Your task to perform on an android device: What is the news today? Image 0: 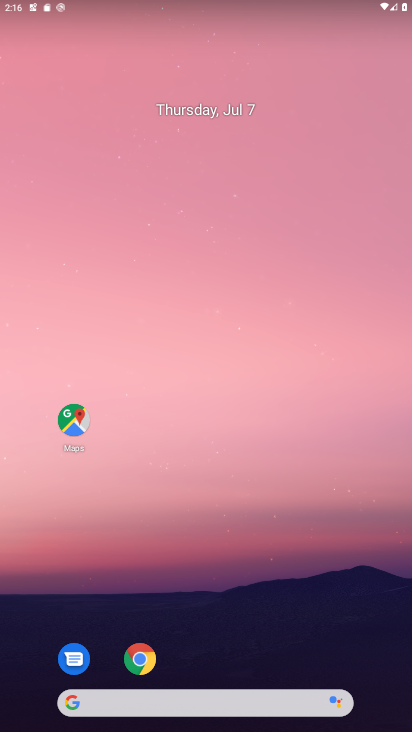
Step 0: drag from (238, 662) to (222, 2)
Your task to perform on an android device: What is the news today? Image 1: 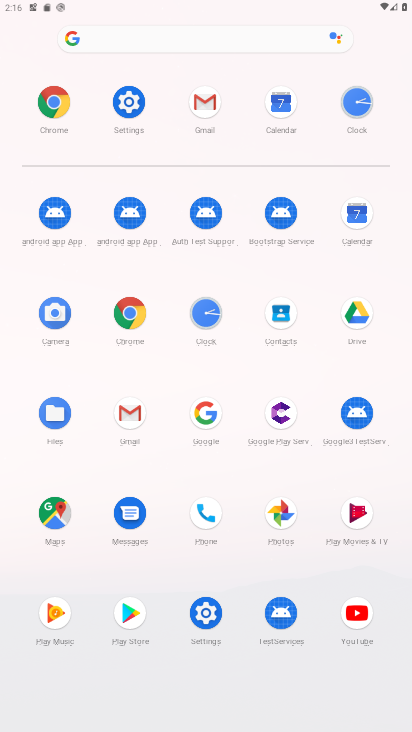
Step 1: click (121, 321)
Your task to perform on an android device: What is the news today? Image 2: 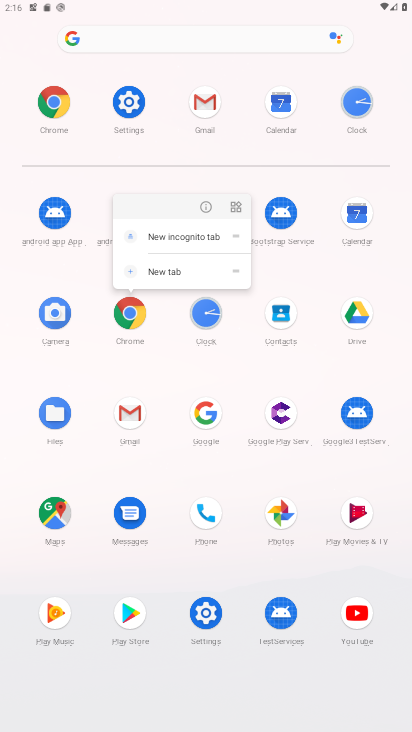
Step 2: click (199, 207)
Your task to perform on an android device: What is the news today? Image 3: 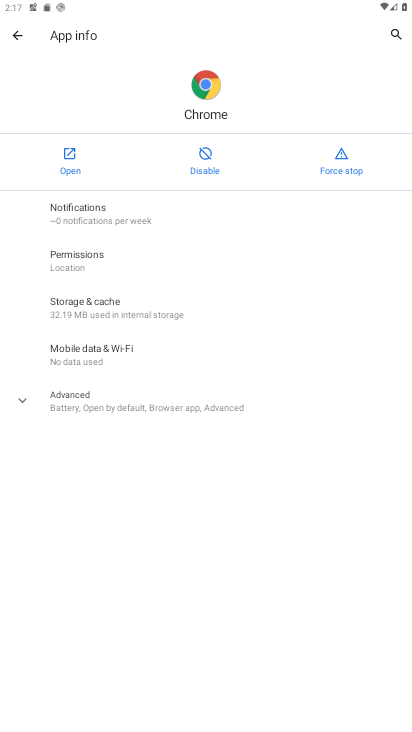
Step 3: click (67, 156)
Your task to perform on an android device: What is the news today? Image 4: 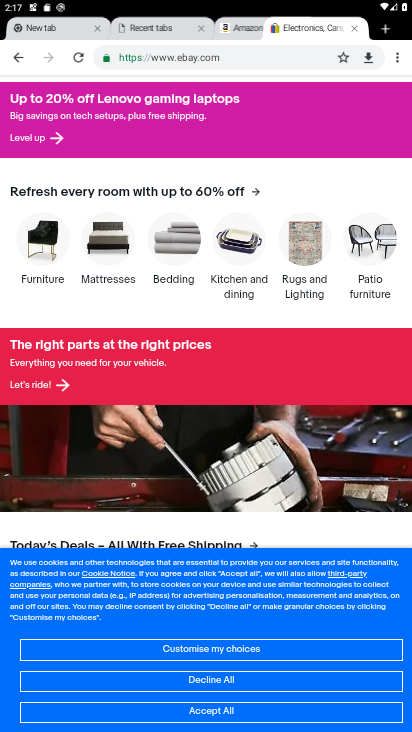
Step 4: click (383, 30)
Your task to perform on an android device: What is the news today? Image 5: 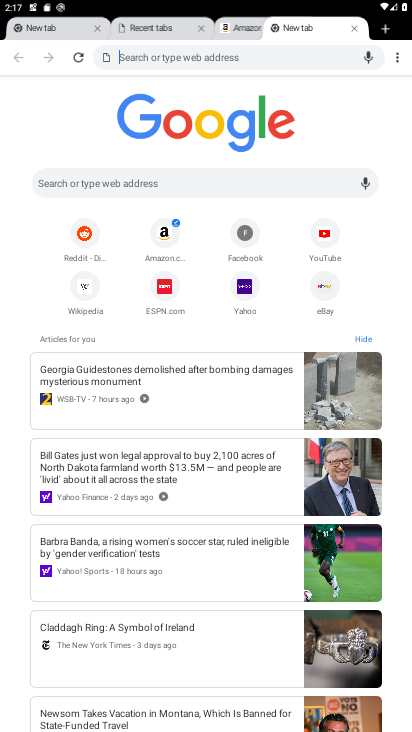
Step 5: click (125, 185)
Your task to perform on an android device: What is the news today? Image 6: 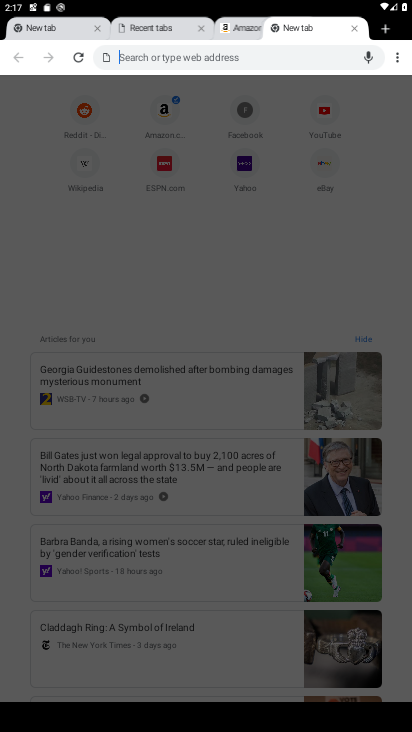
Step 6: click (143, 57)
Your task to perform on an android device: What is the news today? Image 7: 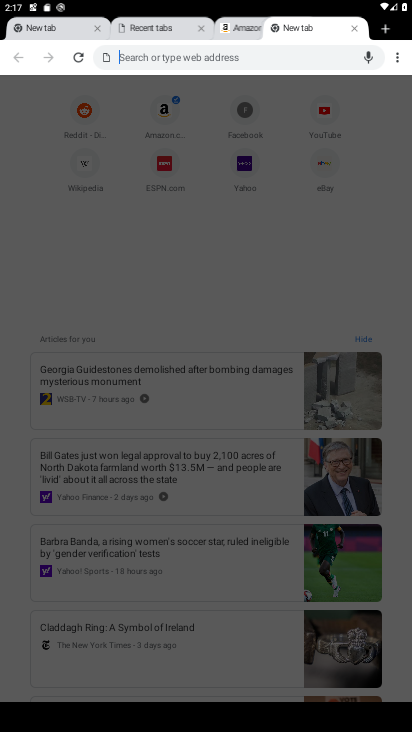
Step 7: type "news today?"
Your task to perform on an android device: What is the news today? Image 8: 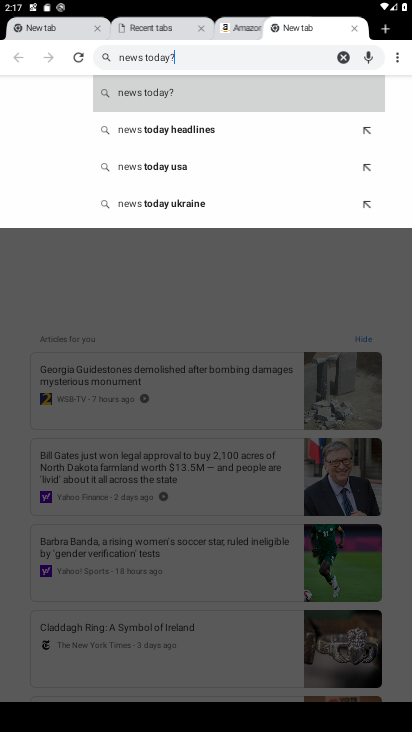
Step 8: type ""
Your task to perform on an android device: What is the news today? Image 9: 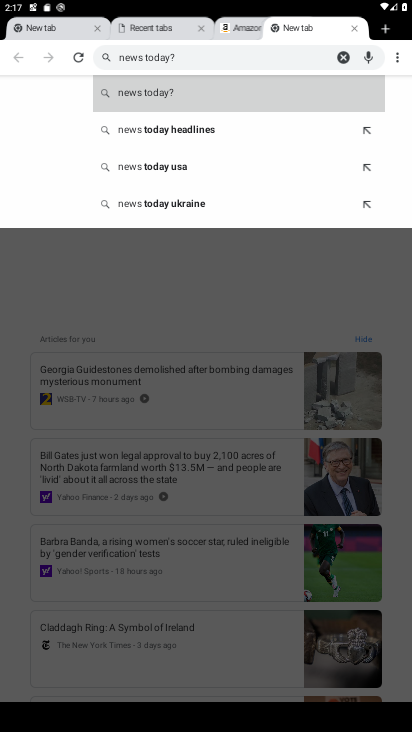
Step 9: click (172, 100)
Your task to perform on an android device: What is the news today? Image 10: 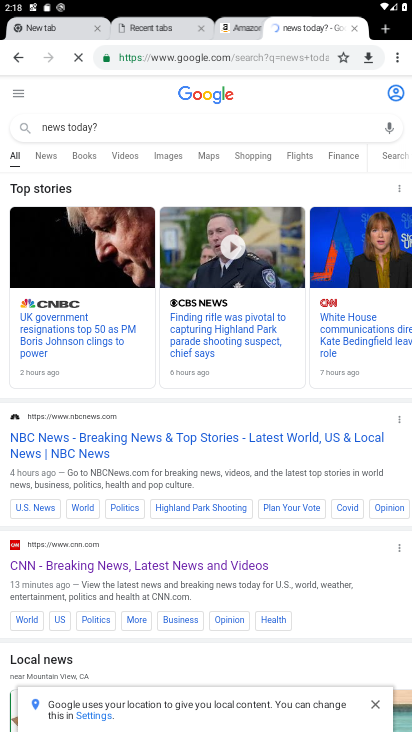
Step 10: task complete